Your task to perform on an android device: Search for alienware area 51 on target.com, select the first entry, add it to the cart, then select checkout. Image 0: 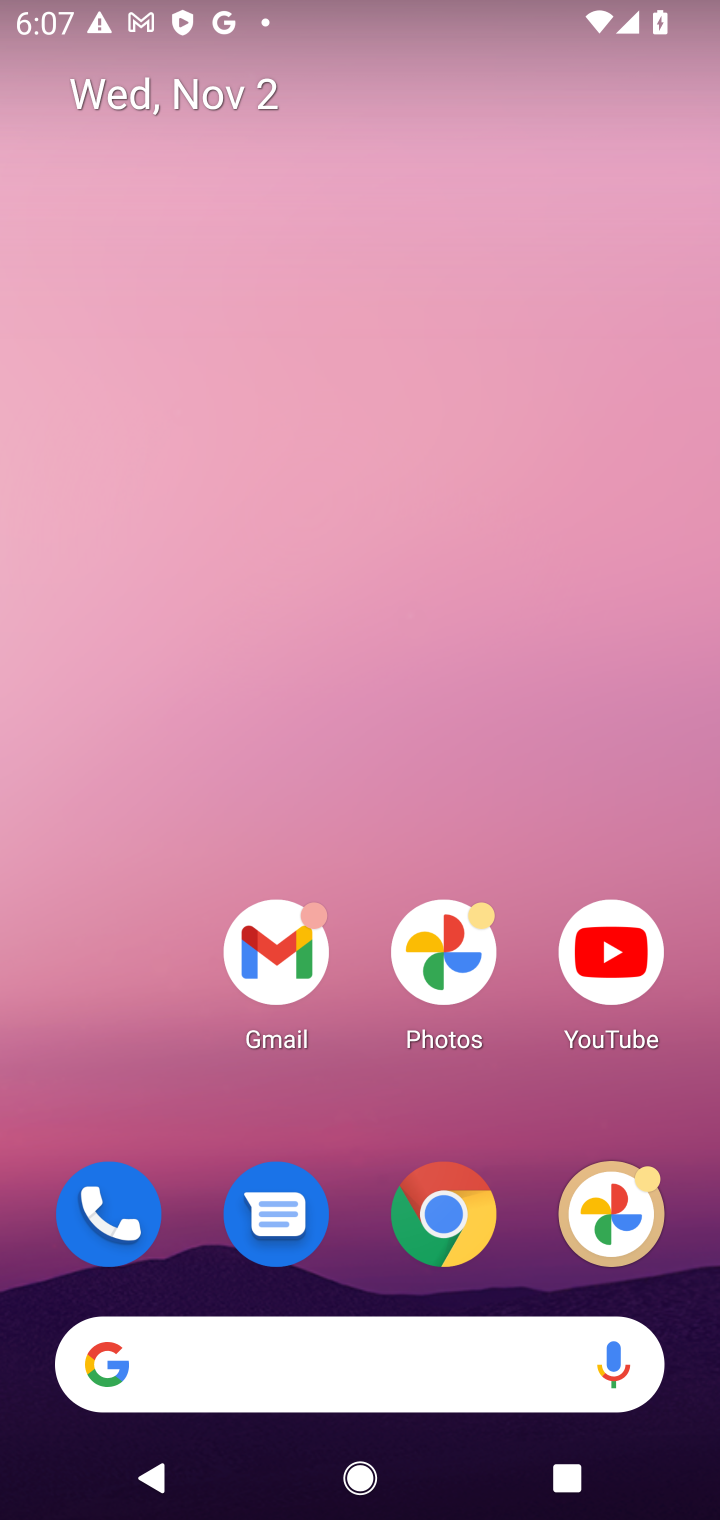
Step 0: click (446, 1216)
Your task to perform on an android device: Search for alienware area 51 on target.com, select the first entry, add it to the cart, then select checkout. Image 1: 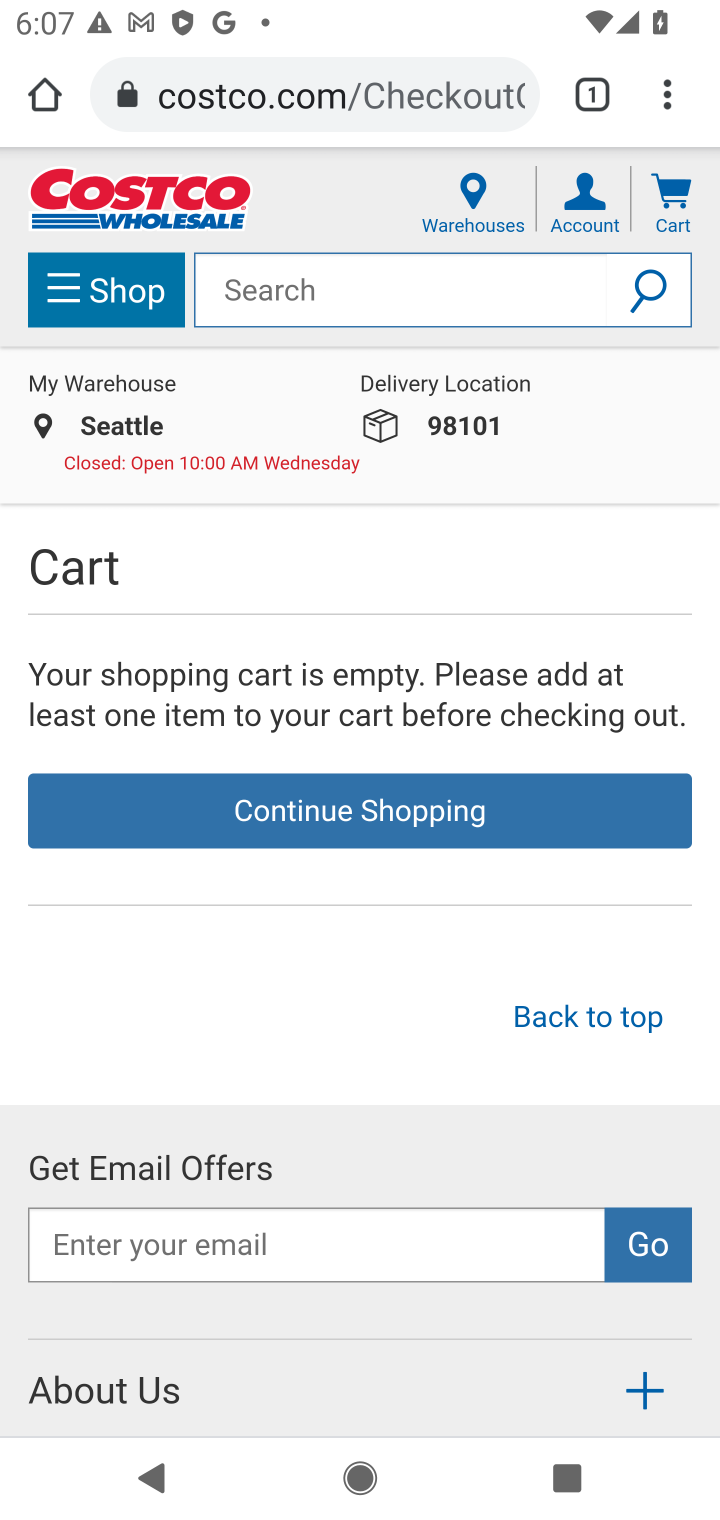
Step 1: click (407, 87)
Your task to perform on an android device: Search for alienware area 51 on target.com, select the first entry, add it to the cart, then select checkout. Image 2: 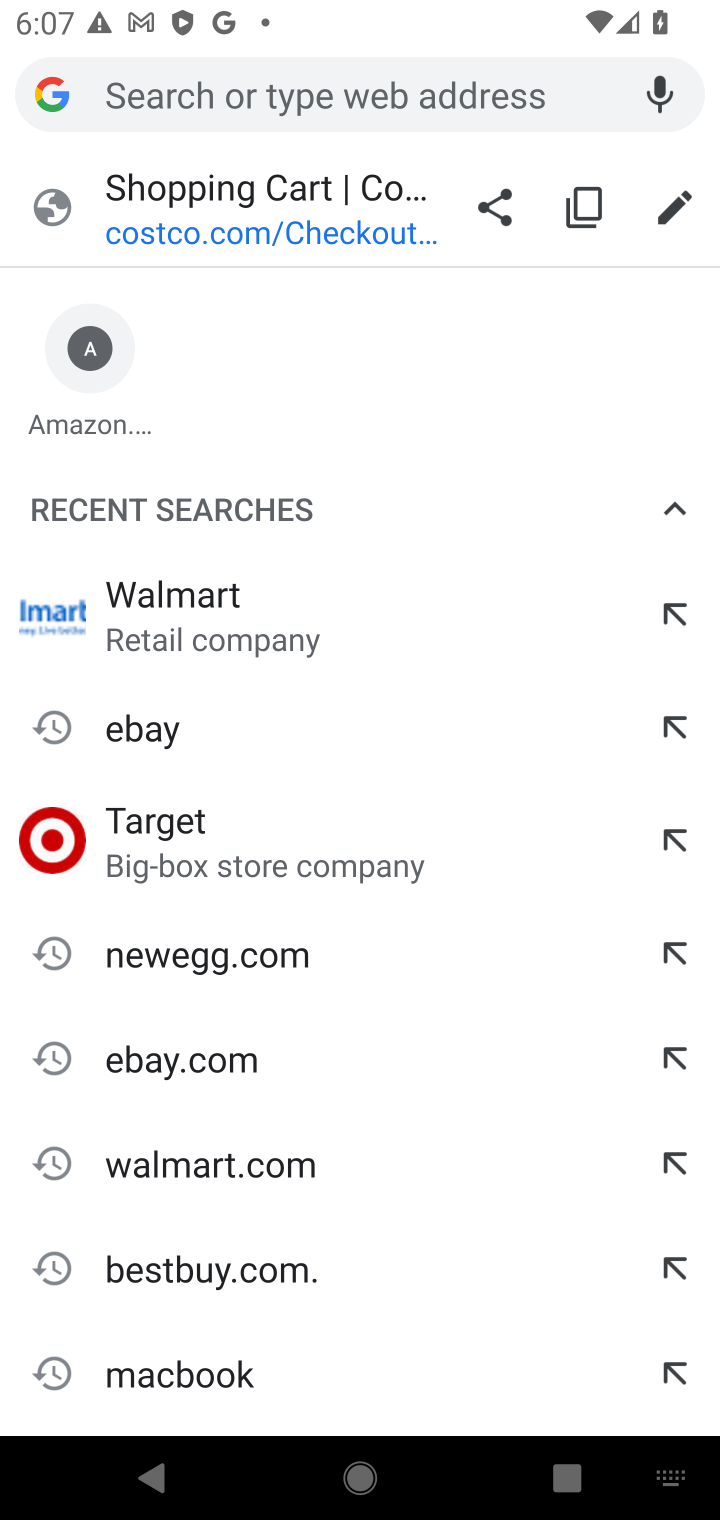
Step 2: type "target.com"
Your task to perform on an android device: Search for alienware area 51 on target.com, select the first entry, add it to the cart, then select checkout. Image 3: 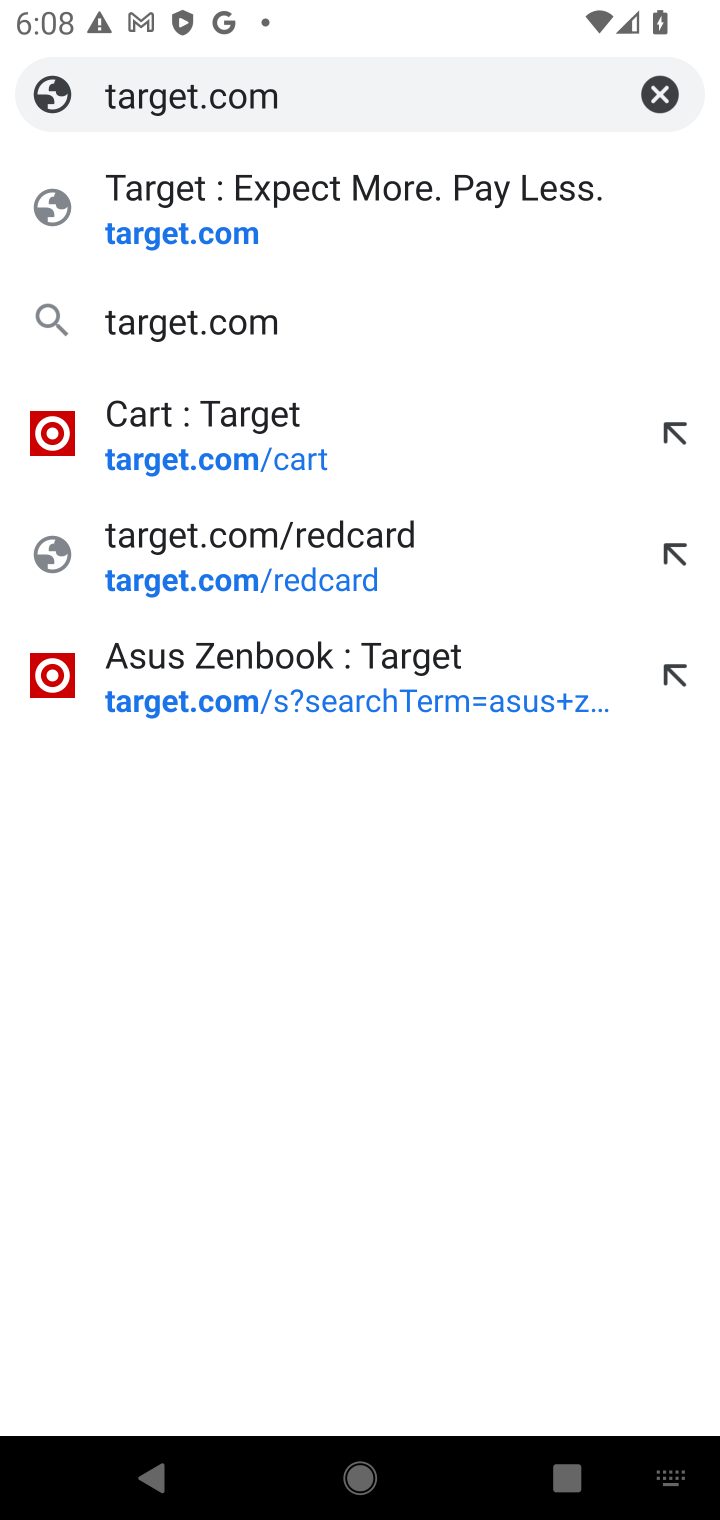
Step 3: click (252, 325)
Your task to perform on an android device: Search for alienware area 51 on target.com, select the first entry, add it to the cart, then select checkout. Image 4: 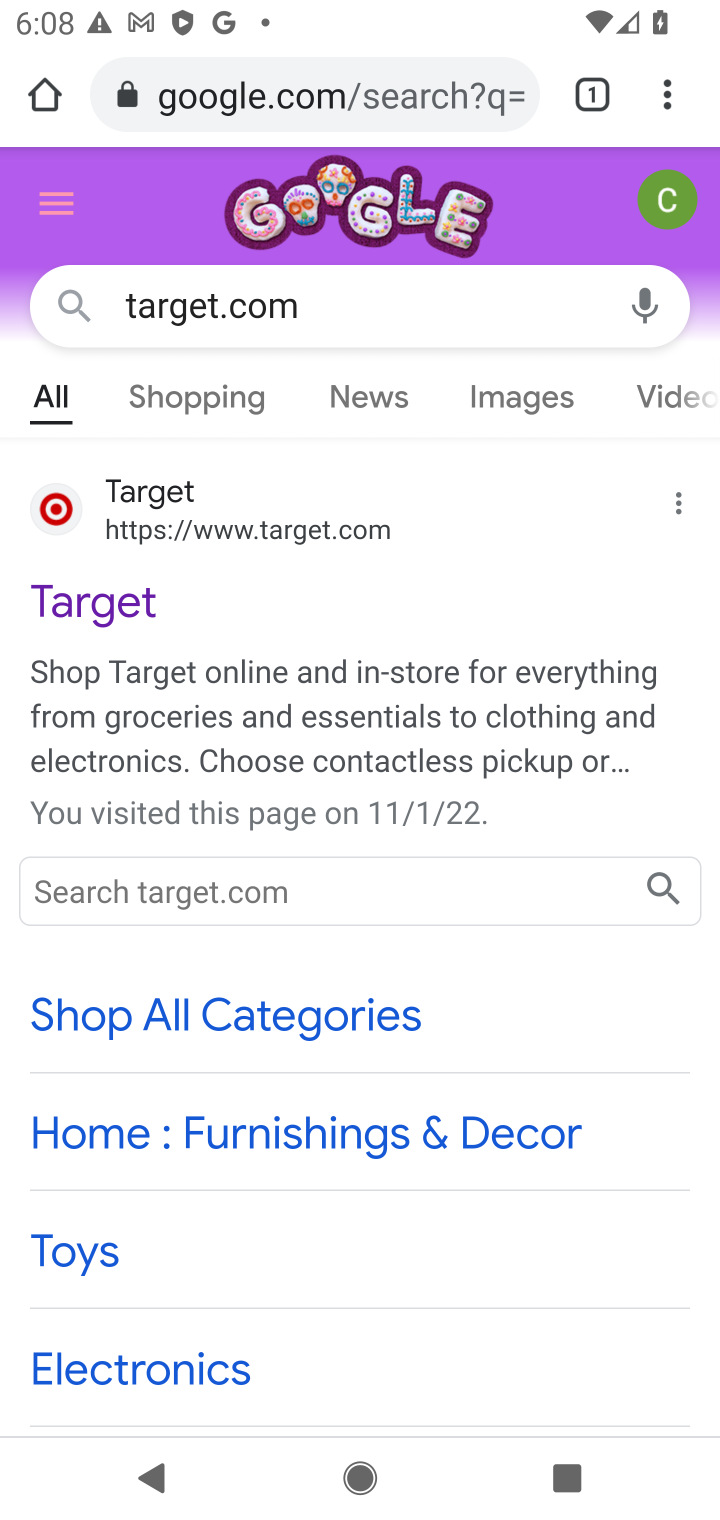
Step 4: click (207, 595)
Your task to perform on an android device: Search for alienware area 51 on target.com, select the first entry, add it to the cart, then select checkout. Image 5: 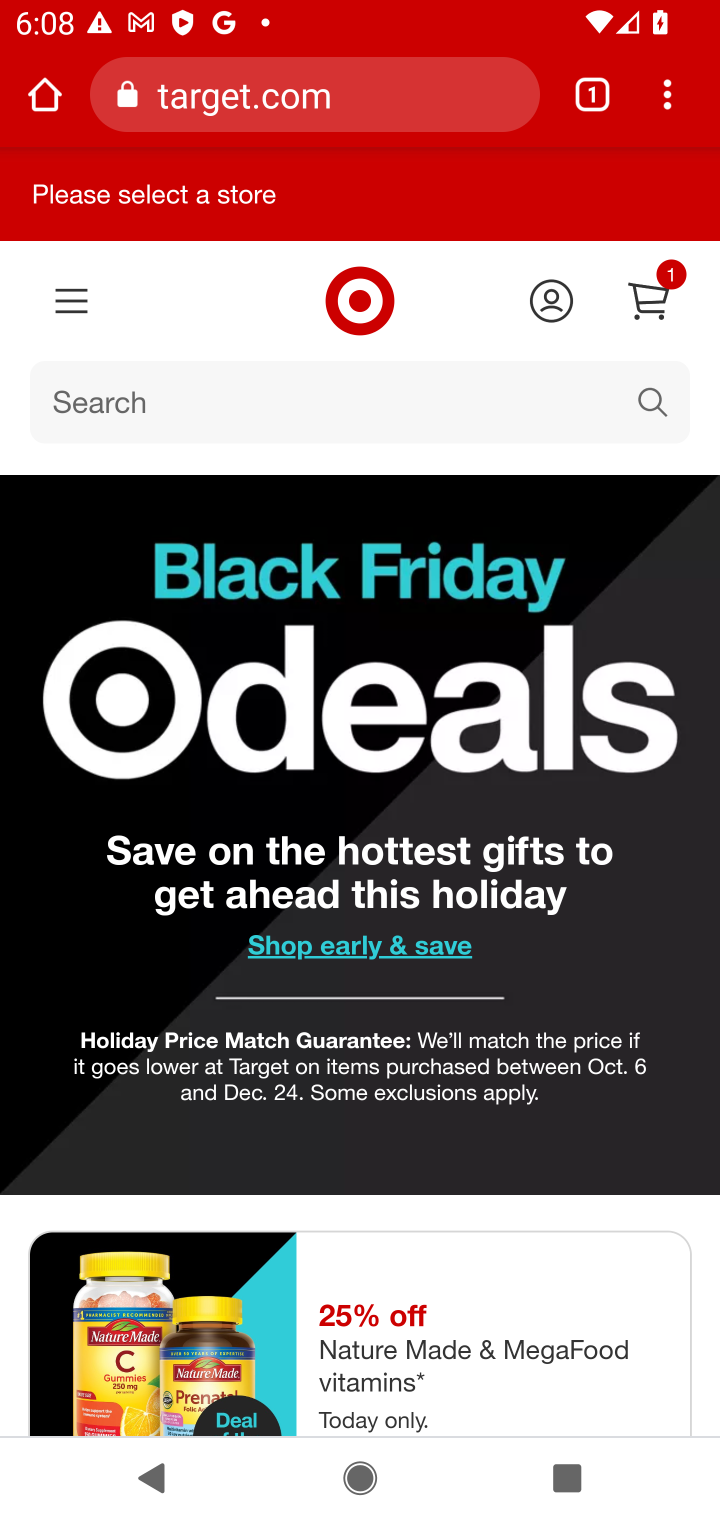
Step 5: click (361, 410)
Your task to perform on an android device: Search for alienware area 51 on target.com, select the first entry, add it to the cart, then select checkout. Image 6: 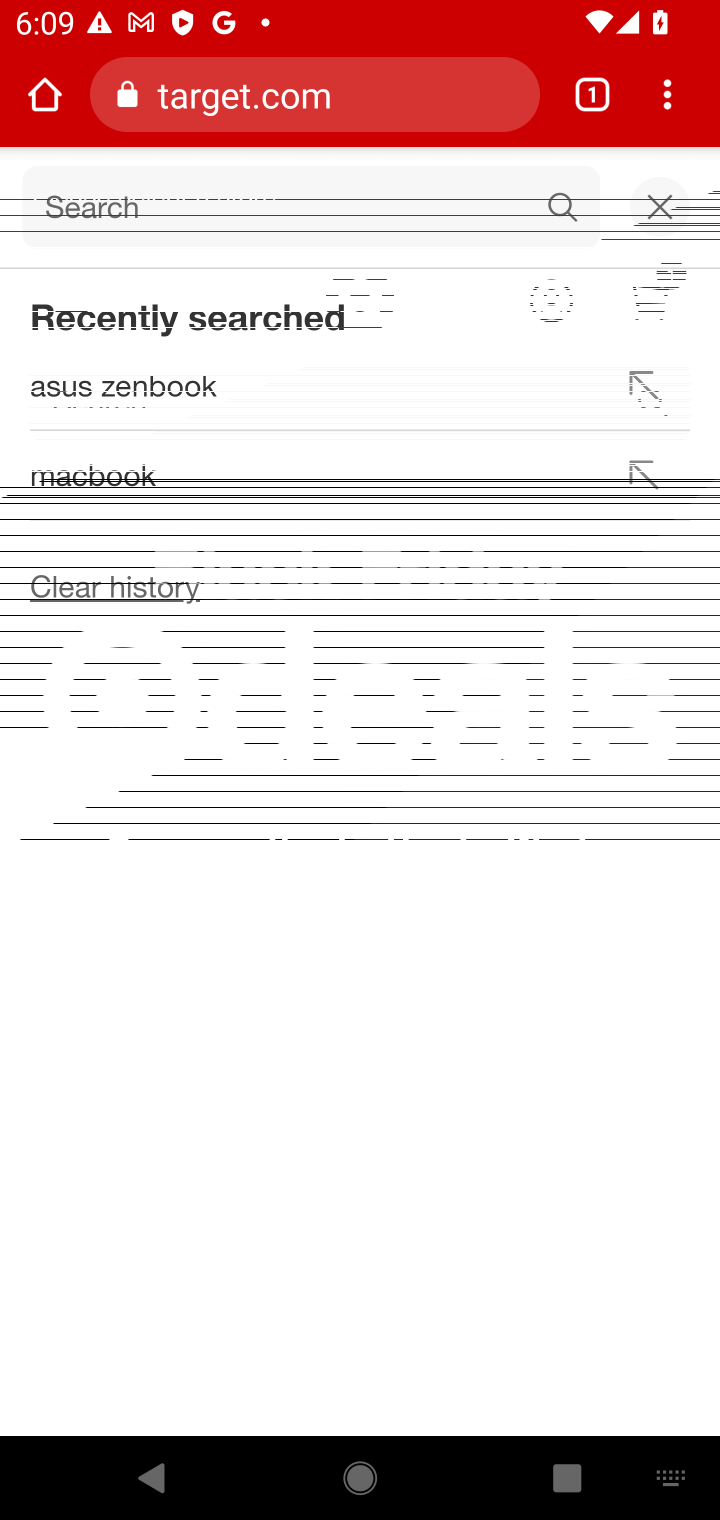
Step 6: type "alienware area 51"
Your task to perform on an android device: Search for alienware area 51 on target.com, select the first entry, add it to the cart, then select checkout. Image 7: 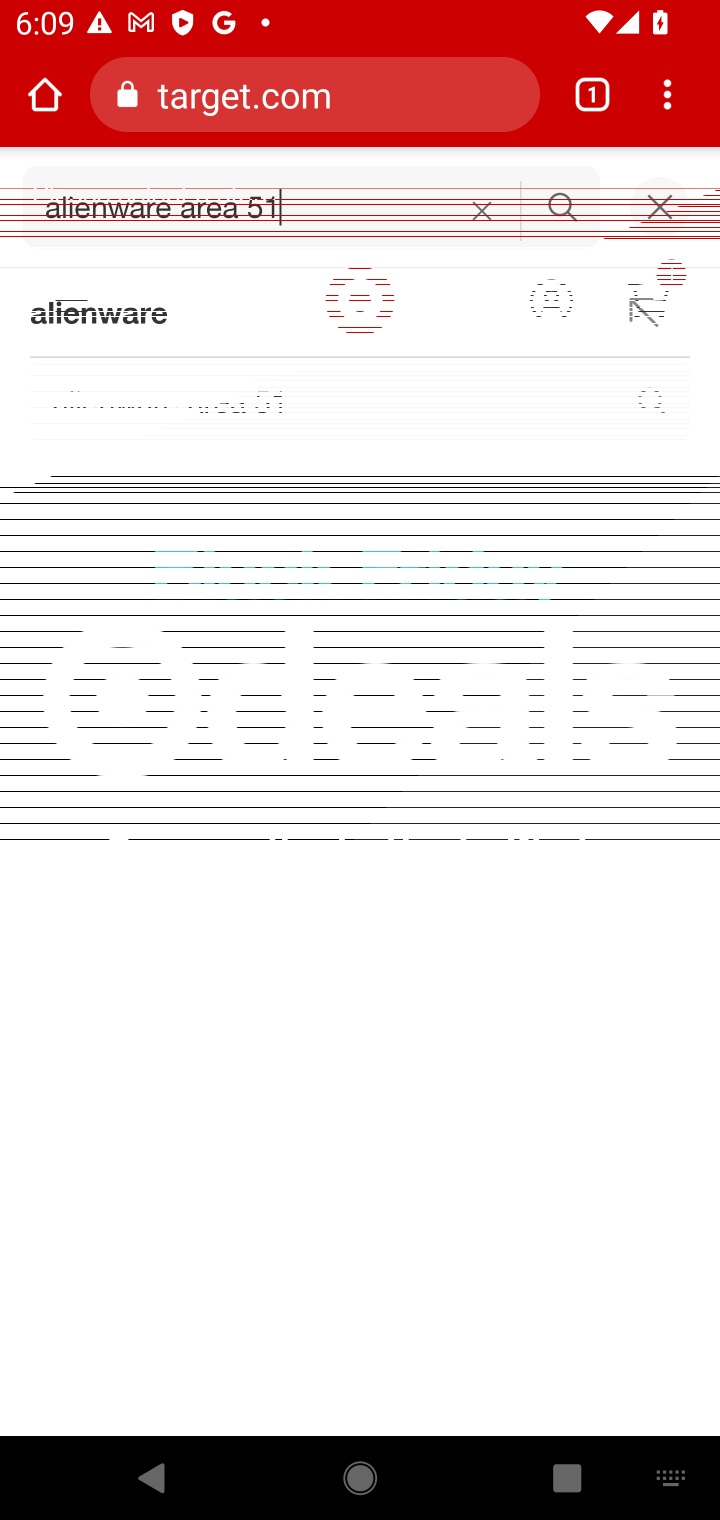
Step 7: click (564, 209)
Your task to perform on an android device: Search for alienware area 51 on target.com, select the first entry, add it to the cart, then select checkout. Image 8: 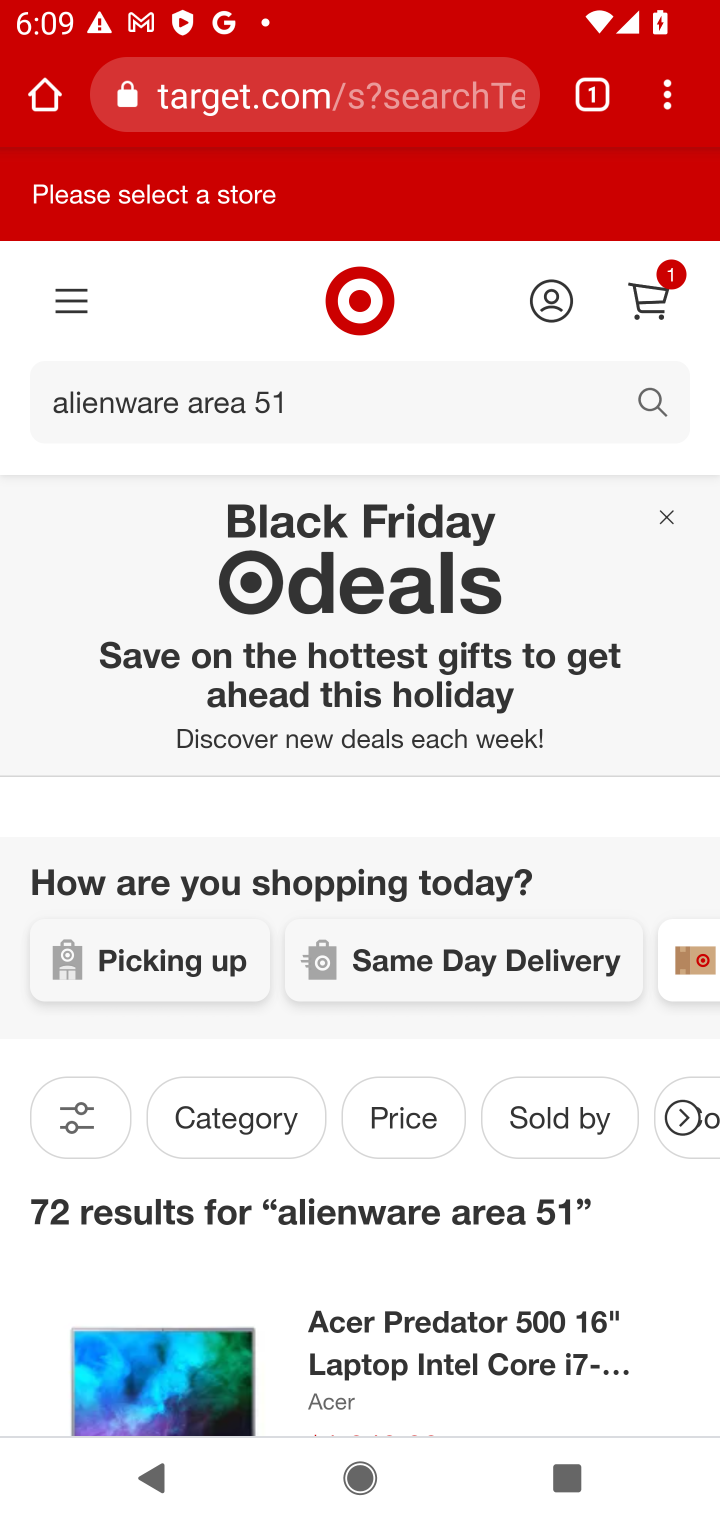
Step 8: drag from (426, 1288) to (545, 625)
Your task to perform on an android device: Search for alienware area 51 on target.com, select the first entry, add it to the cart, then select checkout. Image 9: 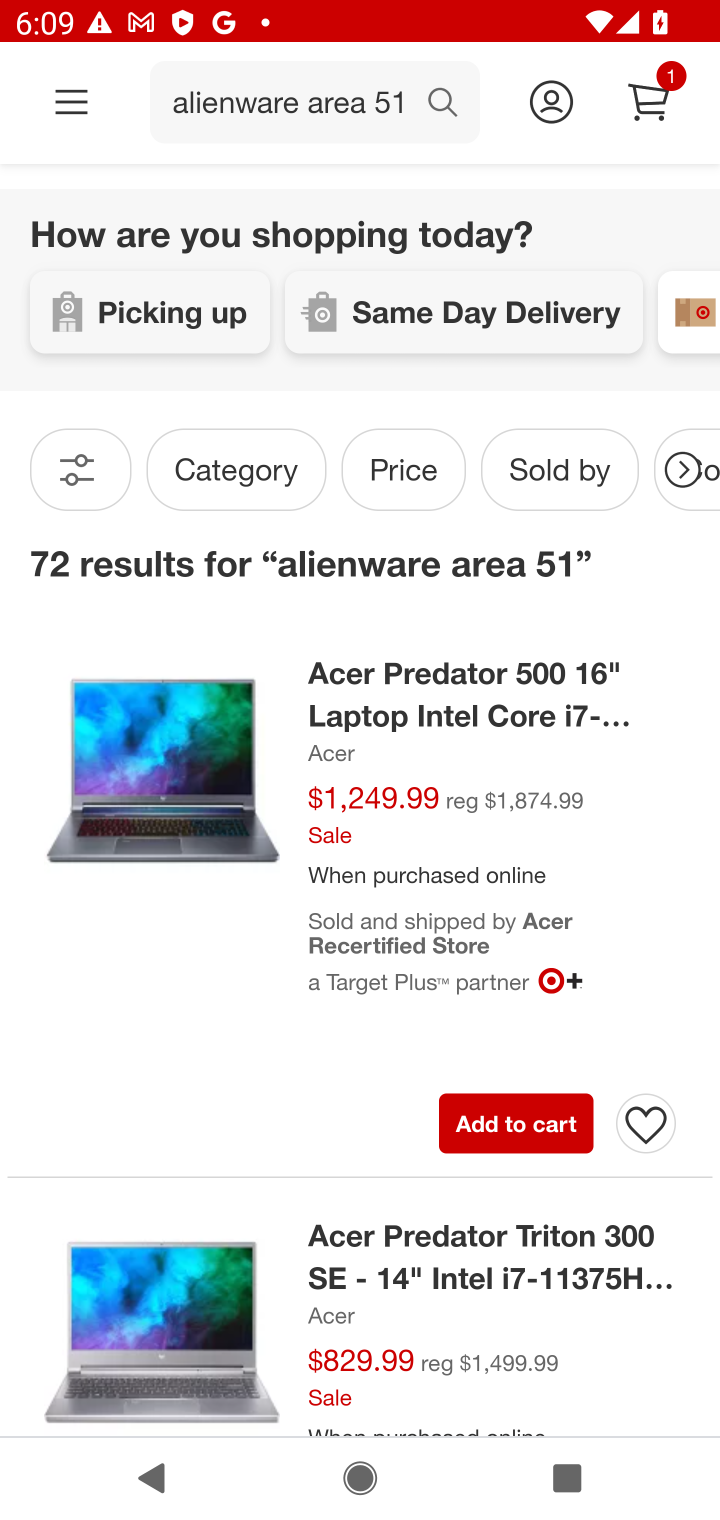
Step 9: click (459, 679)
Your task to perform on an android device: Search for alienware area 51 on target.com, select the first entry, add it to the cart, then select checkout. Image 10: 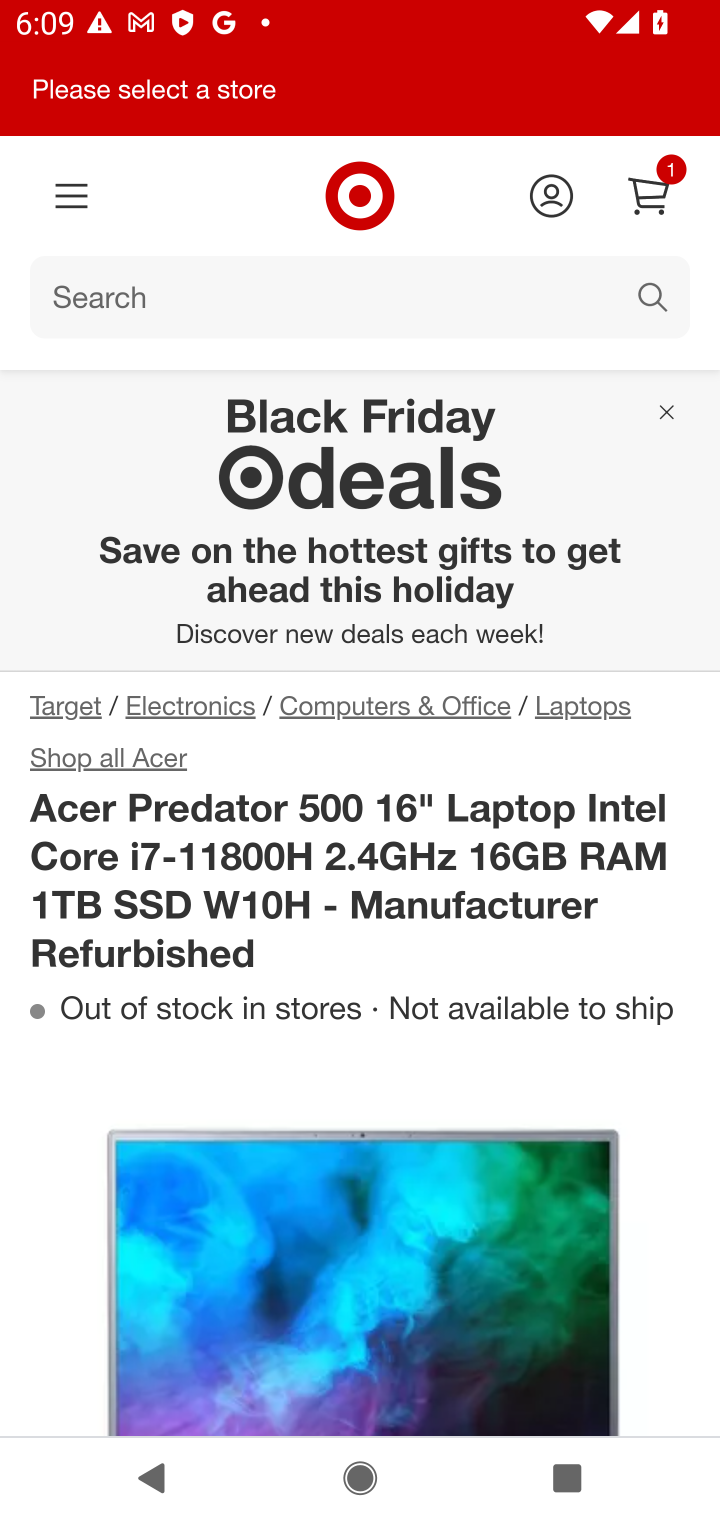
Step 10: drag from (526, 1074) to (583, 551)
Your task to perform on an android device: Search for alienware area 51 on target.com, select the first entry, add it to the cart, then select checkout. Image 11: 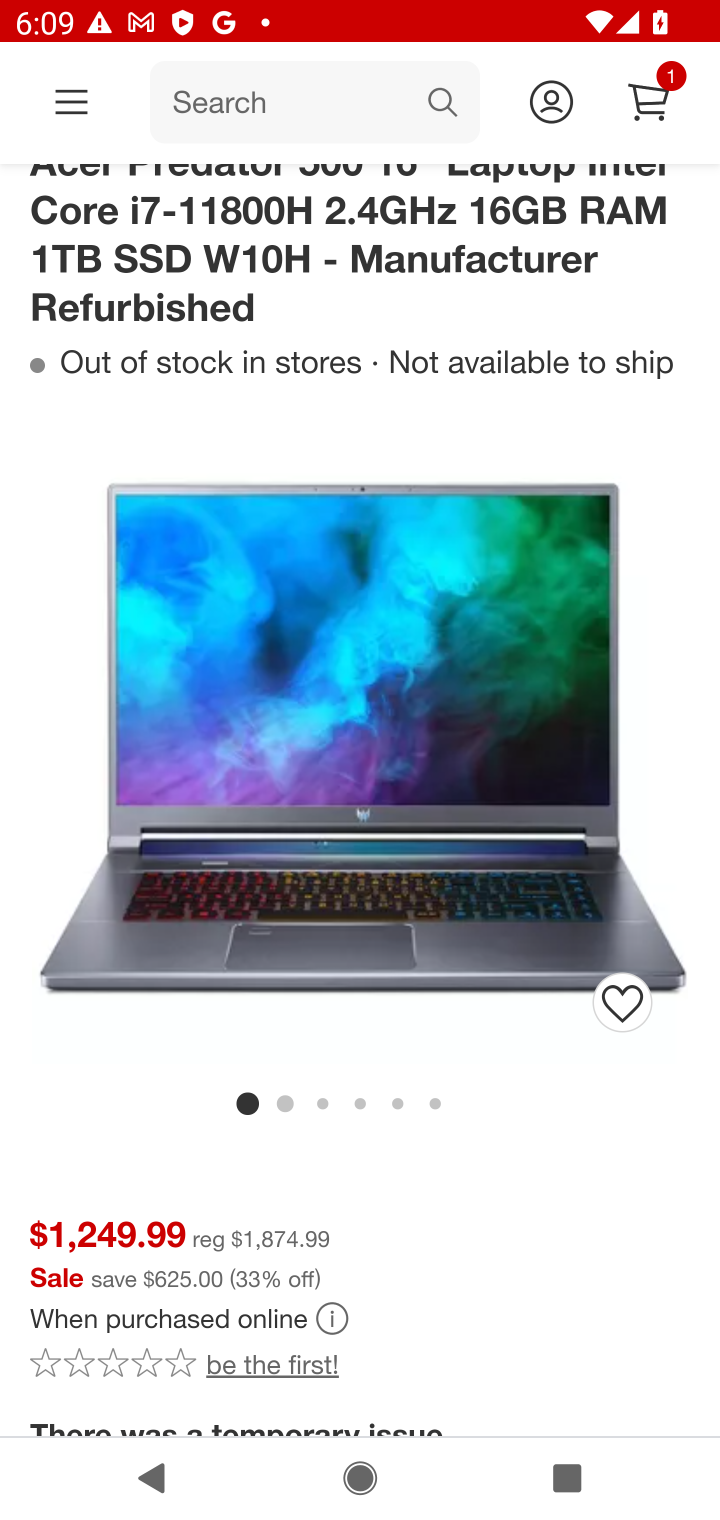
Step 11: drag from (436, 1204) to (484, 547)
Your task to perform on an android device: Search for alienware area 51 on target.com, select the first entry, add it to the cart, then select checkout. Image 12: 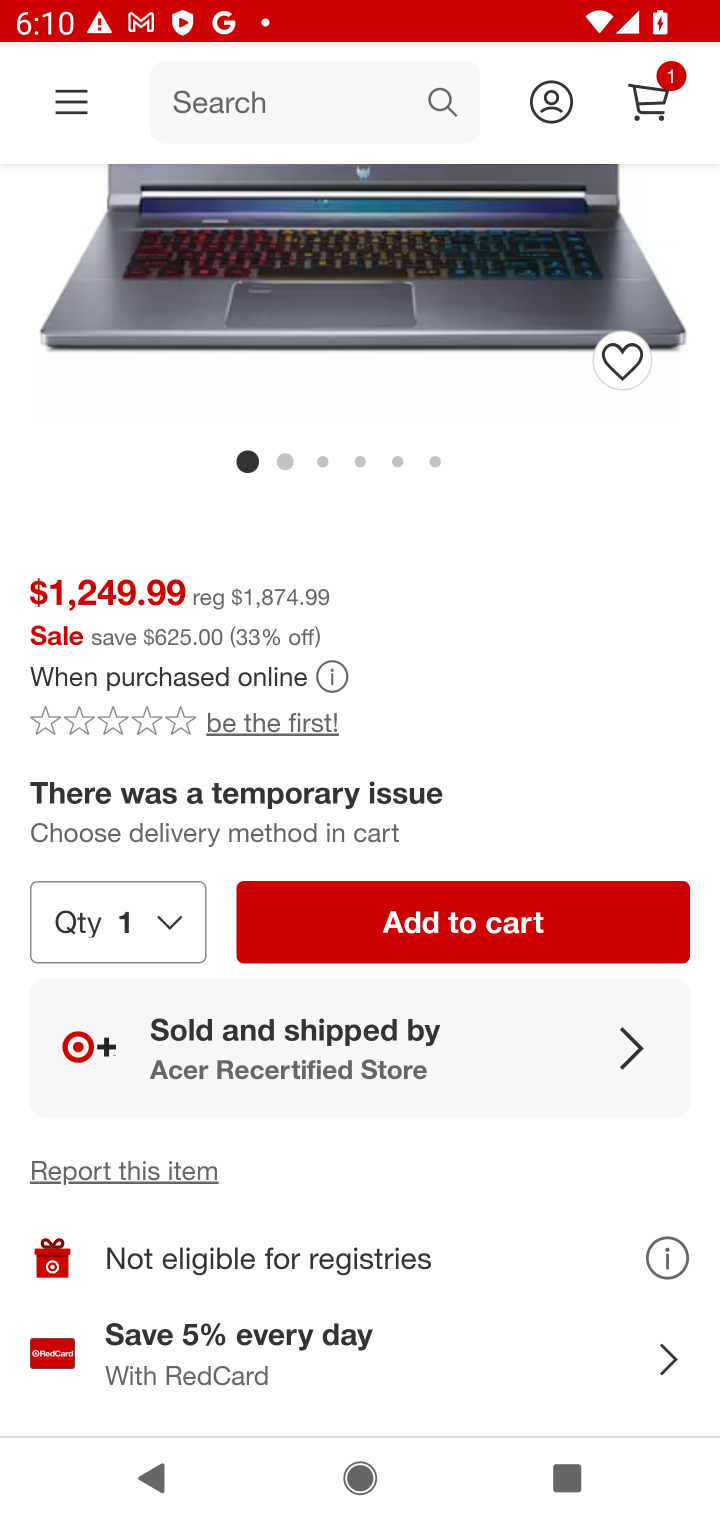
Step 12: click (465, 932)
Your task to perform on an android device: Search for alienware area 51 on target.com, select the first entry, add it to the cart, then select checkout. Image 13: 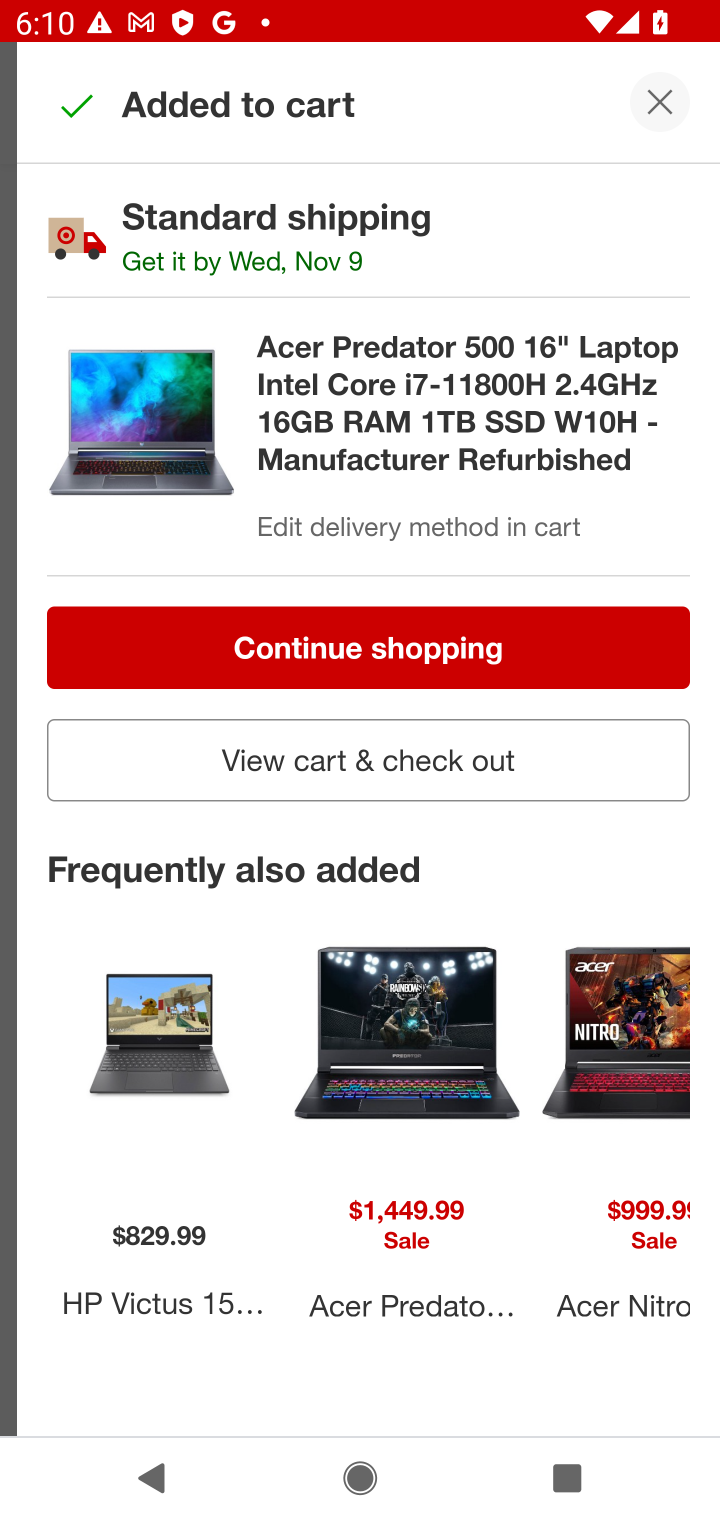
Step 13: click (395, 762)
Your task to perform on an android device: Search for alienware area 51 on target.com, select the first entry, add it to the cart, then select checkout. Image 14: 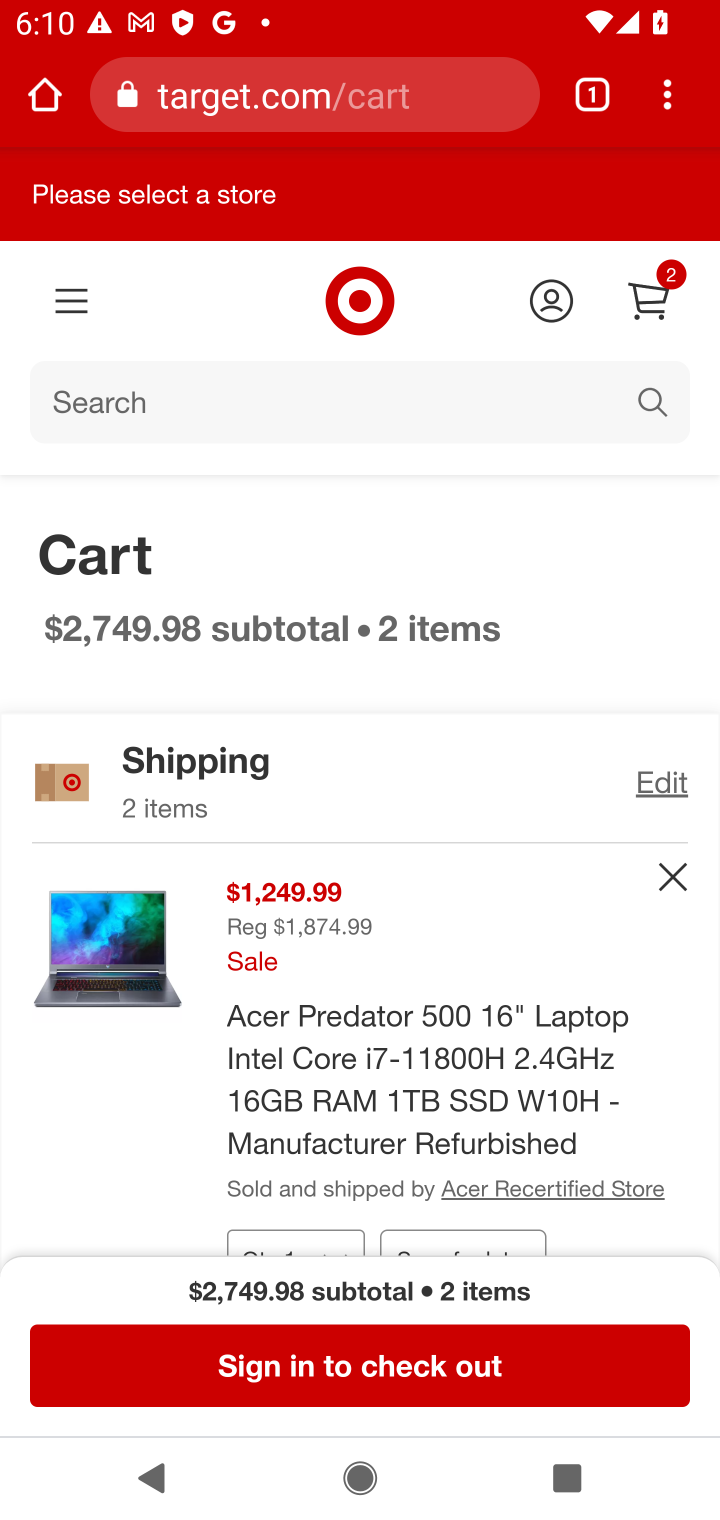
Step 14: click (400, 1371)
Your task to perform on an android device: Search for alienware area 51 on target.com, select the first entry, add it to the cart, then select checkout. Image 15: 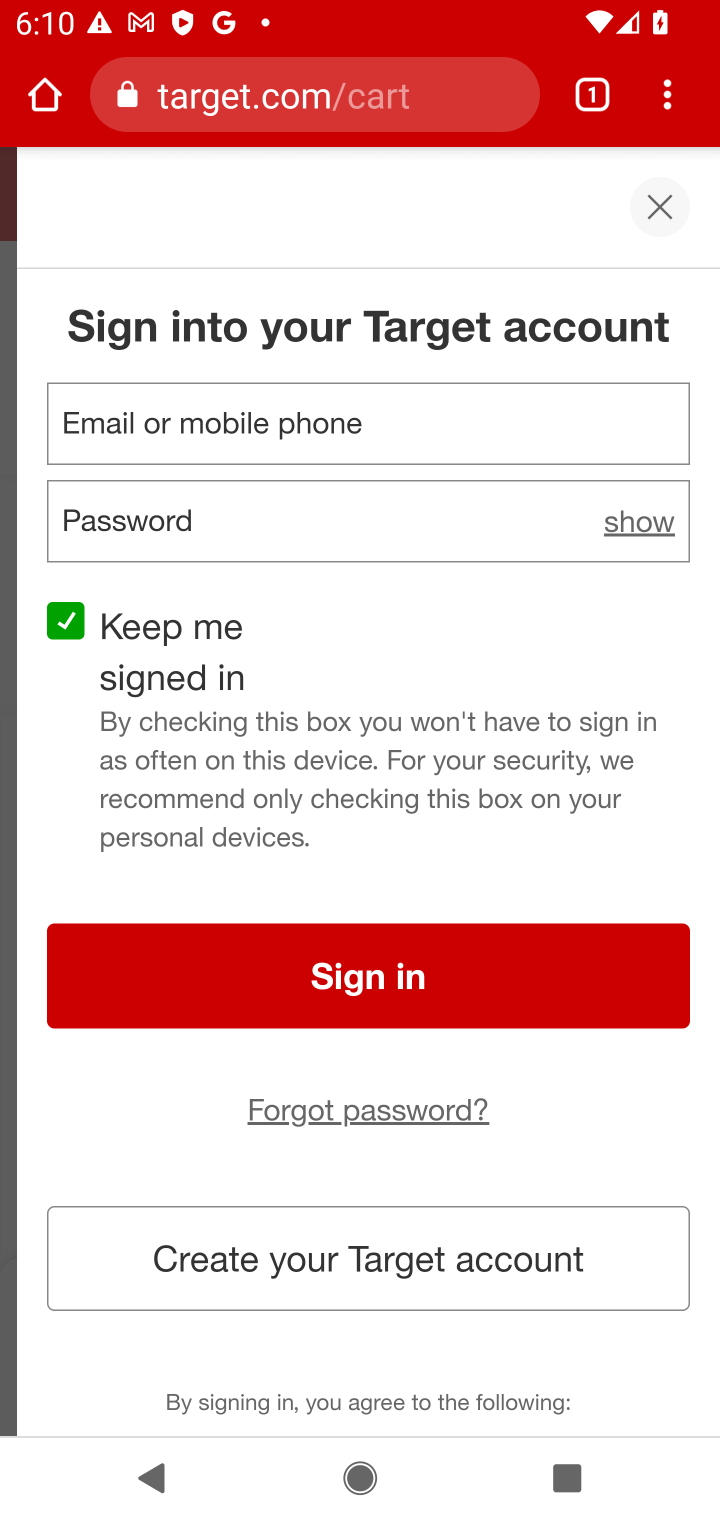
Step 15: task complete